Your task to perform on an android device: set default search engine in the chrome app Image 0: 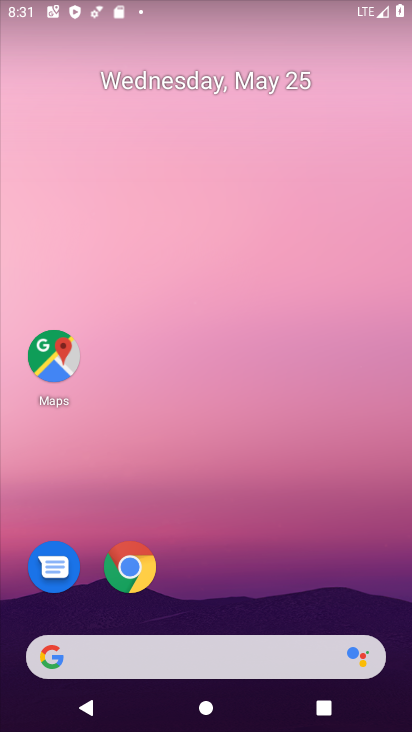
Step 0: click (125, 571)
Your task to perform on an android device: set default search engine in the chrome app Image 1: 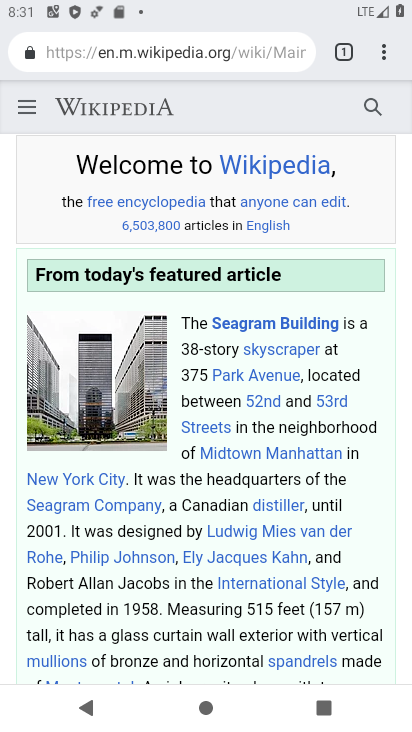
Step 1: click (380, 53)
Your task to perform on an android device: set default search engine in the chrome app Image 2: 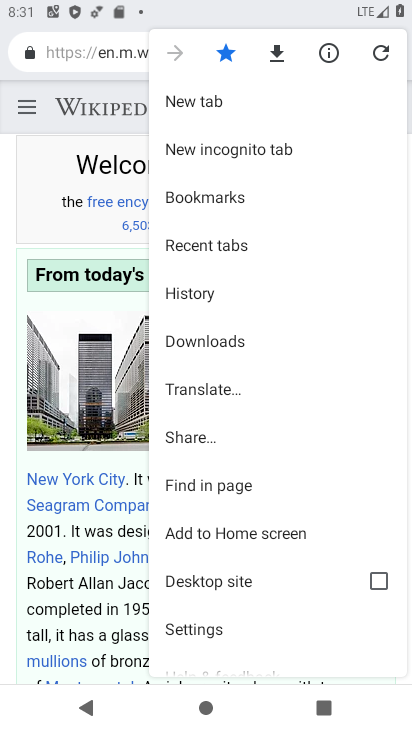
Step 2: click (218, 622)
Your task to perform on an android device: set default search engine in the chrome app Image 3: 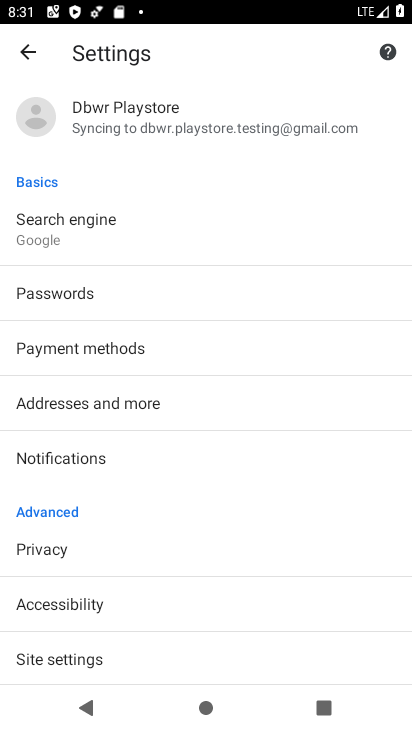
Step 3: click (125, 236)
Your task to perform on an android device: set default search engine in the chrome app Image 4: 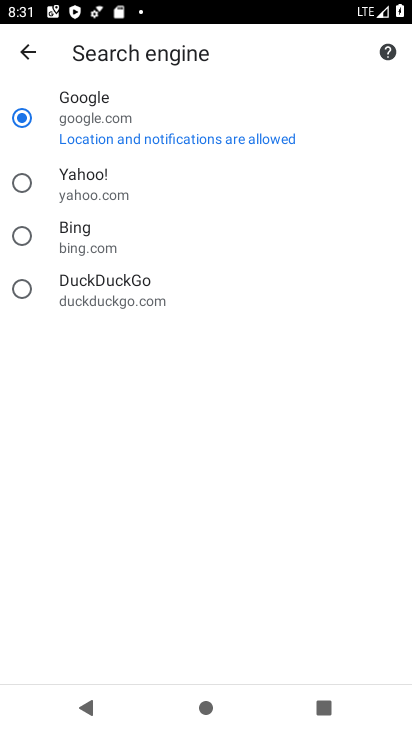
Step 4: task complete